Your task to perform on an android device: turn notification dots off Image 0: 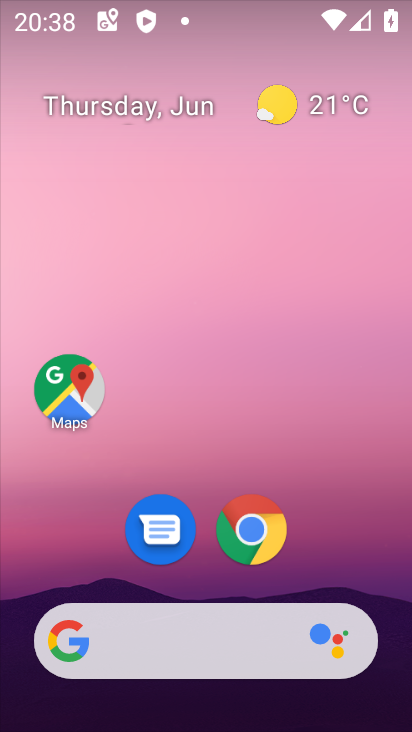
Step 0: drag from (334, 527) to (176, 35)
Your task to perform on an android device: turn notification dots off Image 1: 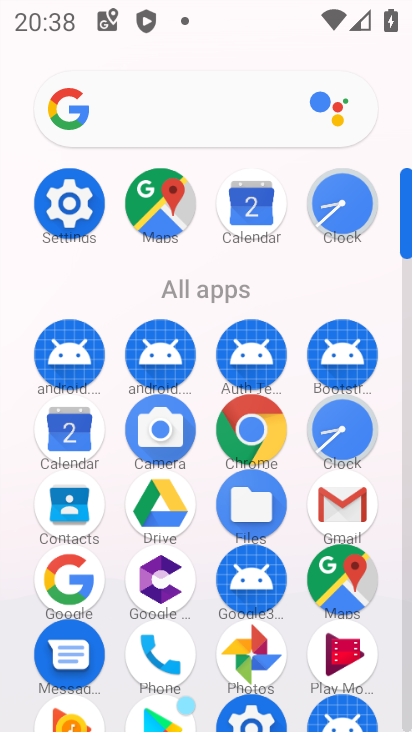
Step 1: click (66, 206)
Your task to perform on an android device: turn notification dots off Image 2: 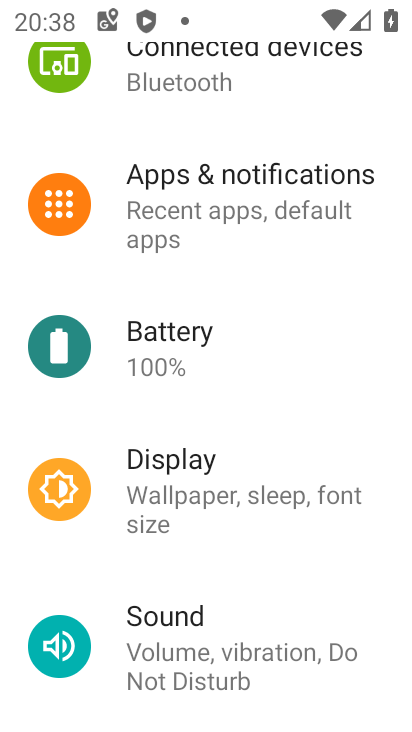
Step 2: click (215, 169)
Your task to perform on an android device: turn notification dots off Image 3: 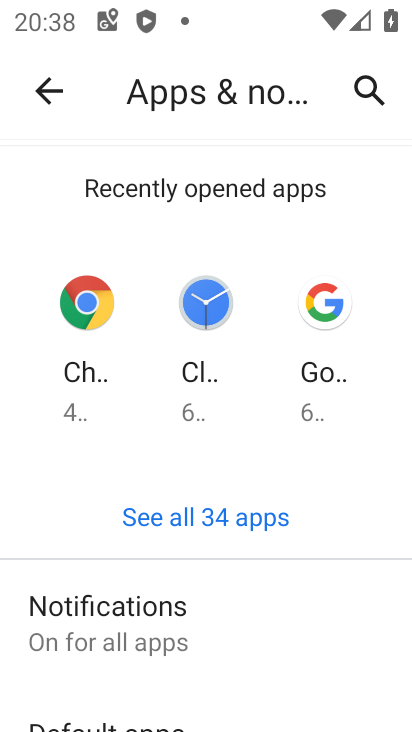
Step 3: click (123, 606)
Your task to perform on an android device: turn notification dots off Image 4: 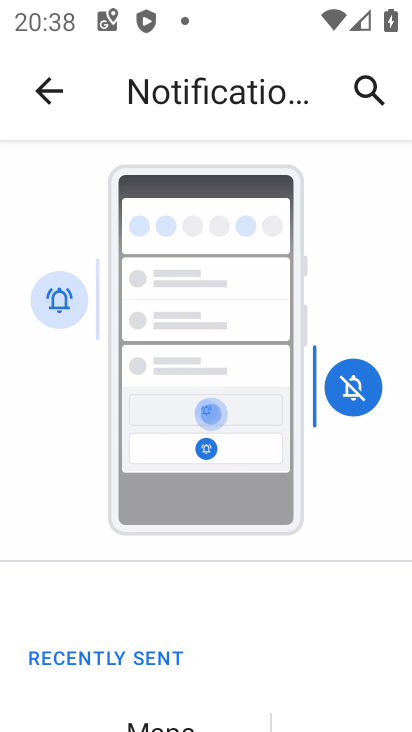
Step 4: drag from (339, 647) to (279, 275)
Your task to perform on an android device: turn notification dots off Image 5: 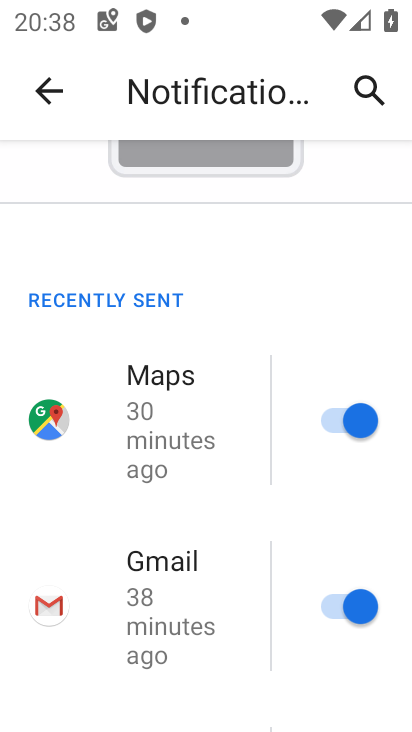
Step 5: drag from (243, 638) to (218, 335)
Your task to perform on an android device: turn notification dots off Image 6: 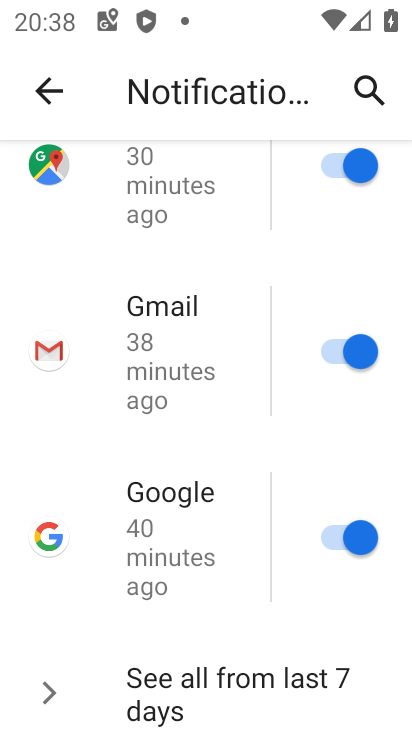
Step 6: drag from (233, 584) to (190, 222)
Your task to perform on an android device: turn notification dots off Image 7: 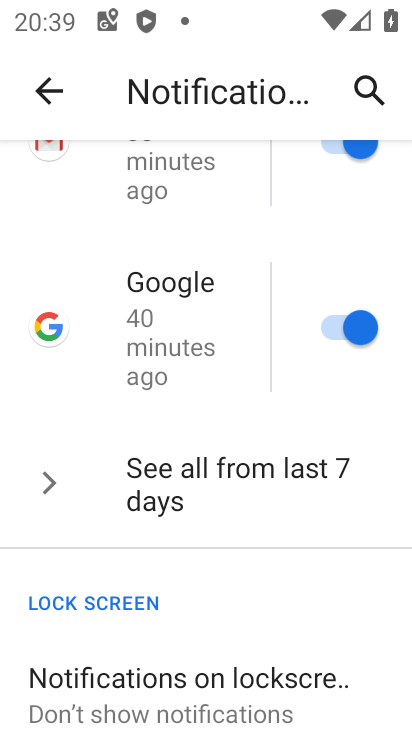
Step 7: drag from (212, 611) to (212, 341)
Your task to perform on an android device: turn notification dots off Image 8: 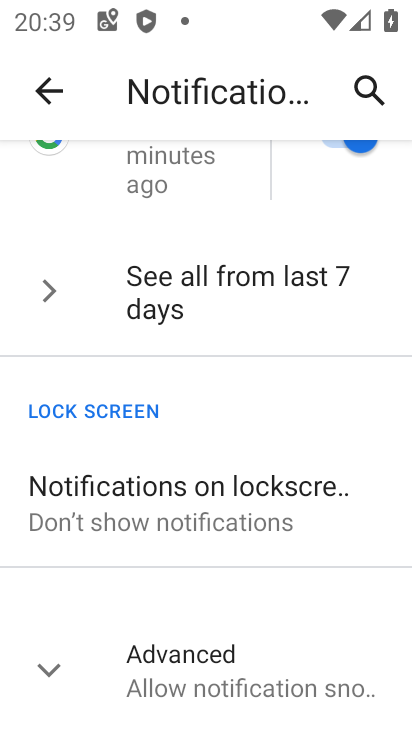
Step 8: click (55, 662)
Your task to perform on an android device: turn notification dots off Image 9: 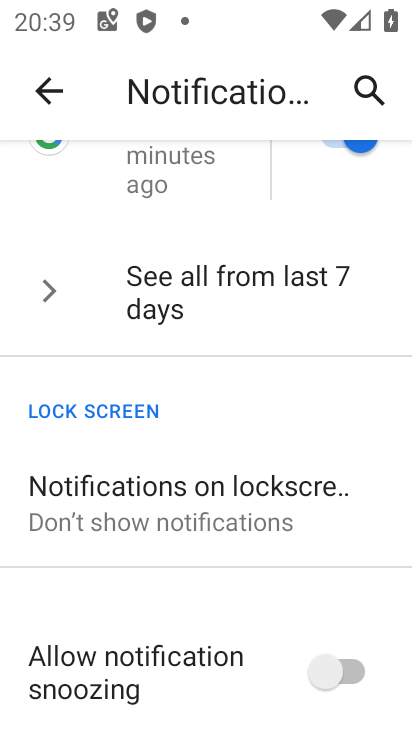
Step 9: drag from (171, 621) to (159, 371)
Your task to perform on an android device: turn notification dots off Image 10: 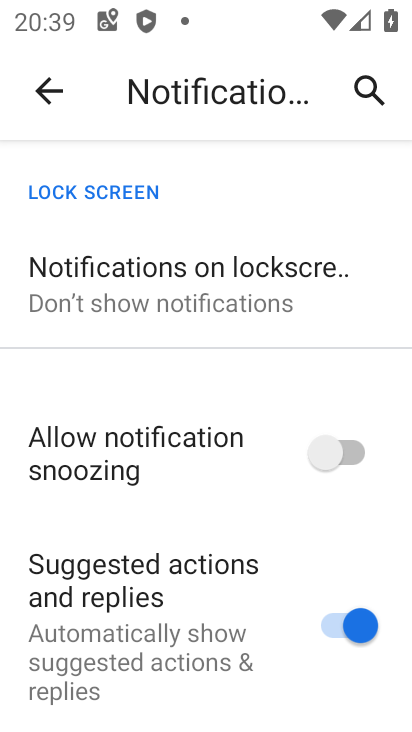
Step 10: drag from (235, 522) to (197, 211)
Your task to perform on an android device: turn notification dots off Image 11: 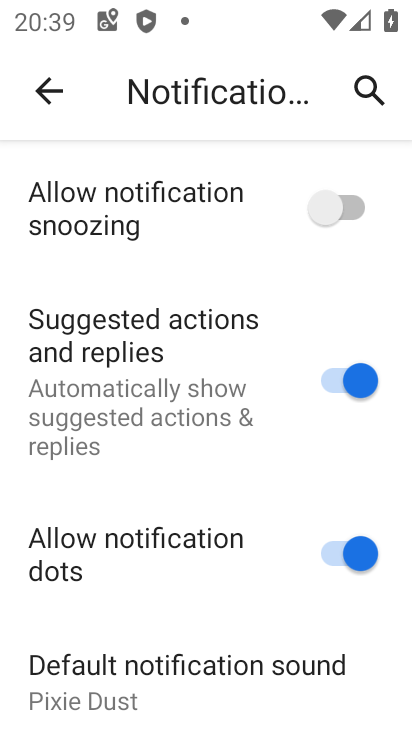
Step 11: click (356, 563)
Your task to perform on an android device: turn notification dots off Image 12: 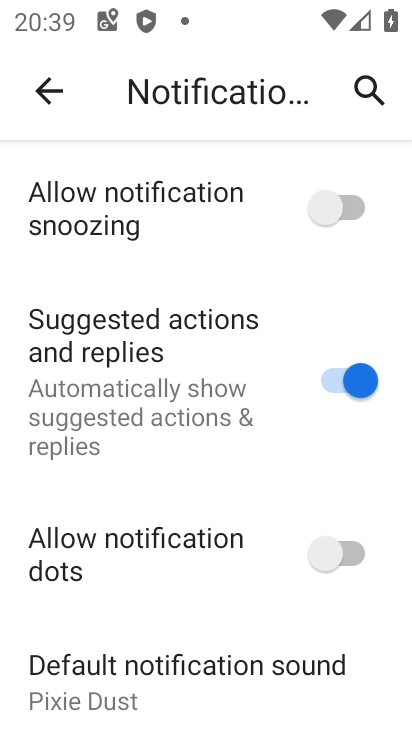
Step 12: task complete